Your task to perform on an android device: toggle show notifications on the lock screen Image 0: 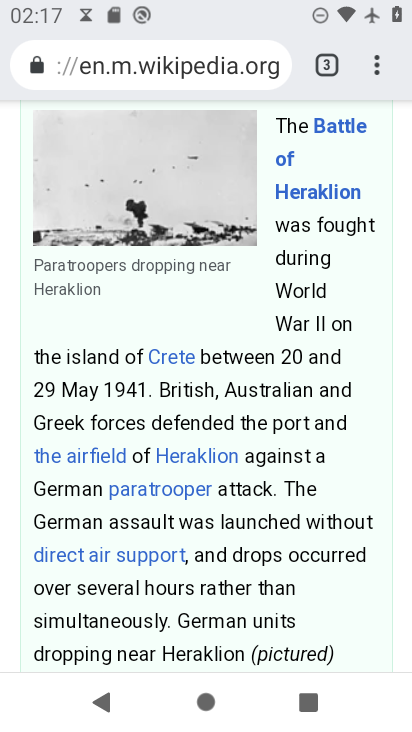
Step 0: press home button
Your task to perform on an android device: toggle show notifications on the lock screen Image 1: 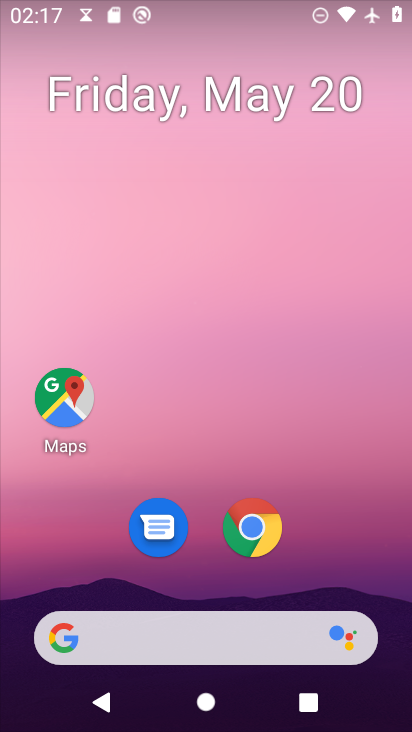
Step 1: drag from (140, 652) to (321, 0)
Your task to perform on an android device: toggle show notifications on the lock screen Image 2: 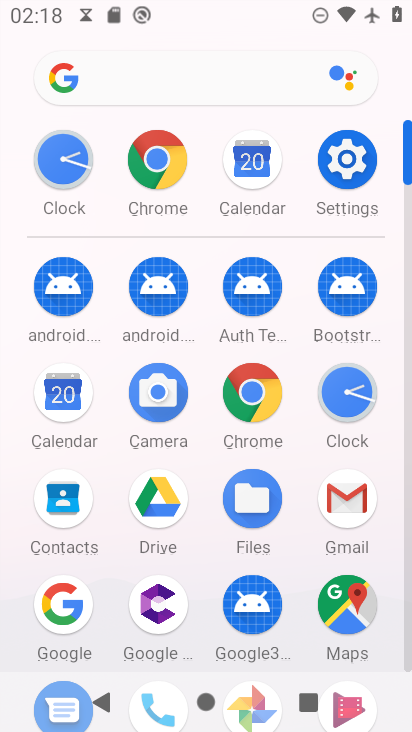
Step 2: click (349, 168)
Your task to perform on an android device: toggle show notifications on the lock screen Image 3: 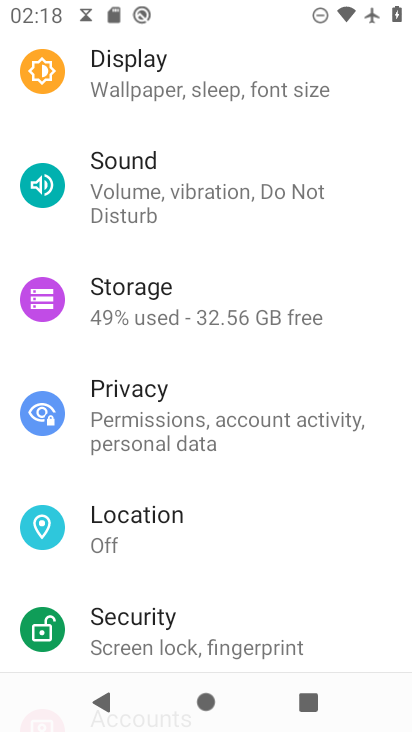
Step 3: drag from (309, 145) to (219, 649)
Your task to perform on an android device: toggle show notifications on the lock screen Image 4: 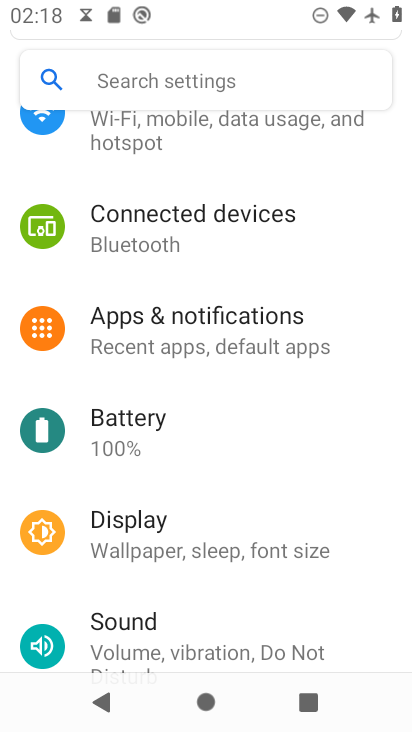
Step 4: click (272, 328)
Your task to perform on an android device: toggle show notifications on the lock screen Image 5: 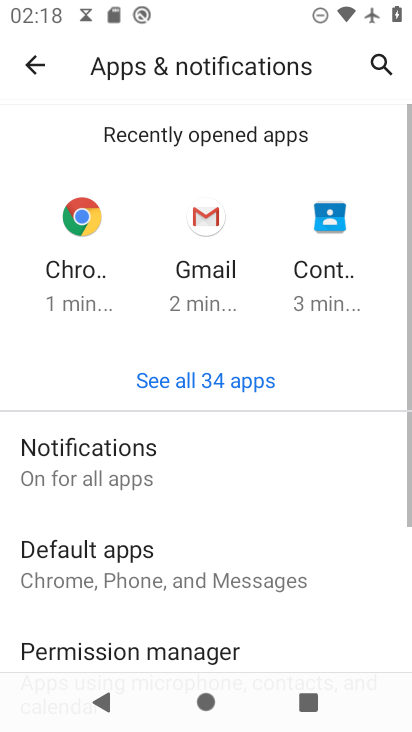
Step 5: click (127, 449)
Your task to perform on an android device: toggle show notifications on the lock screen Image 6: 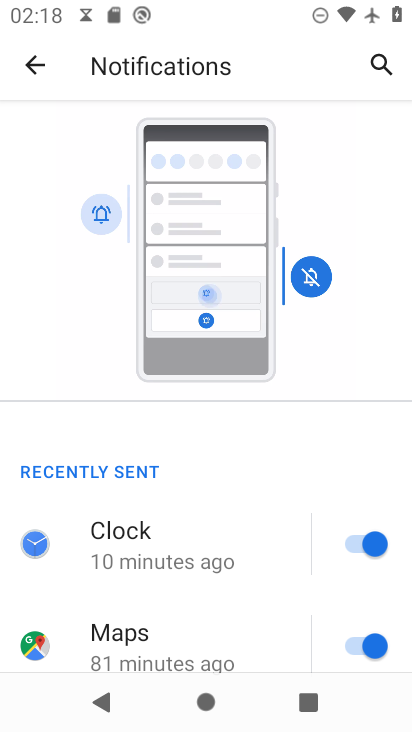
Step 6: drag from (253, 606) to (368, 115)
Your task to perform on an android device: toggle show notifications on the lock screen Image 7: 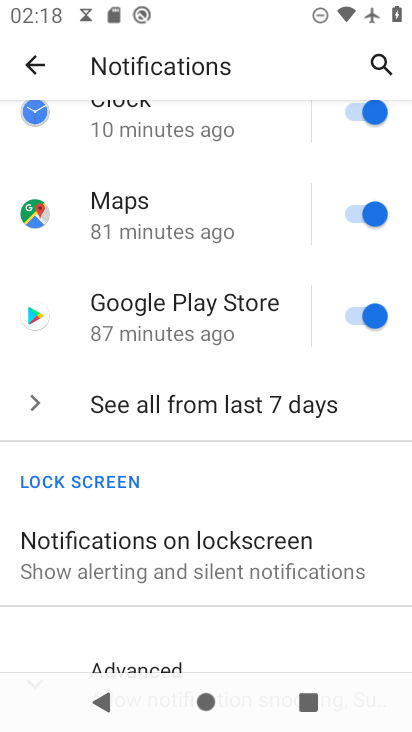
Step 7: click (207, 552)
Your task to perform on an android device: toggle show notifications on the lock screen Image 8: 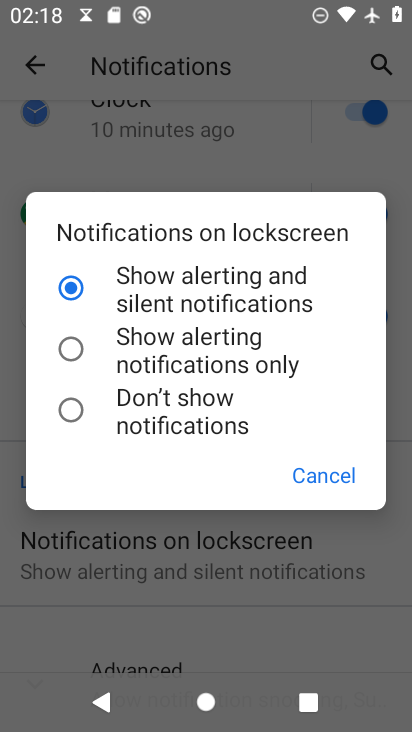
Step 8: click (58, 412)
Your task to perform on an android device: toggle show notifications on the lock screen Image 9: 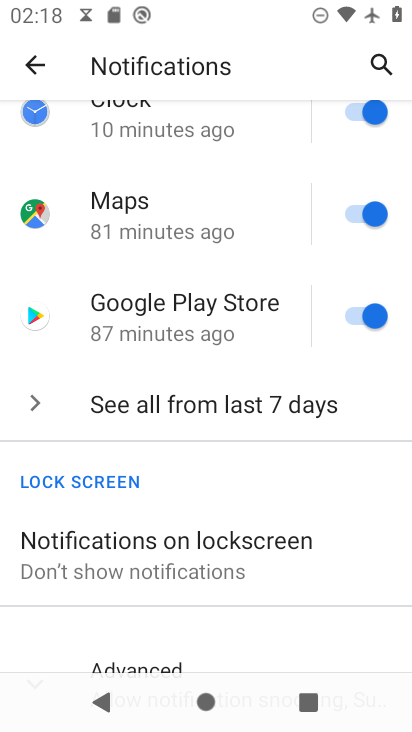
Step 9: task complete